Your task to perform on an android device: Show the shopping cart on costco.com. Add "lenovo thinkpad" to the cart on costco.com, then select checkout. Image 0: 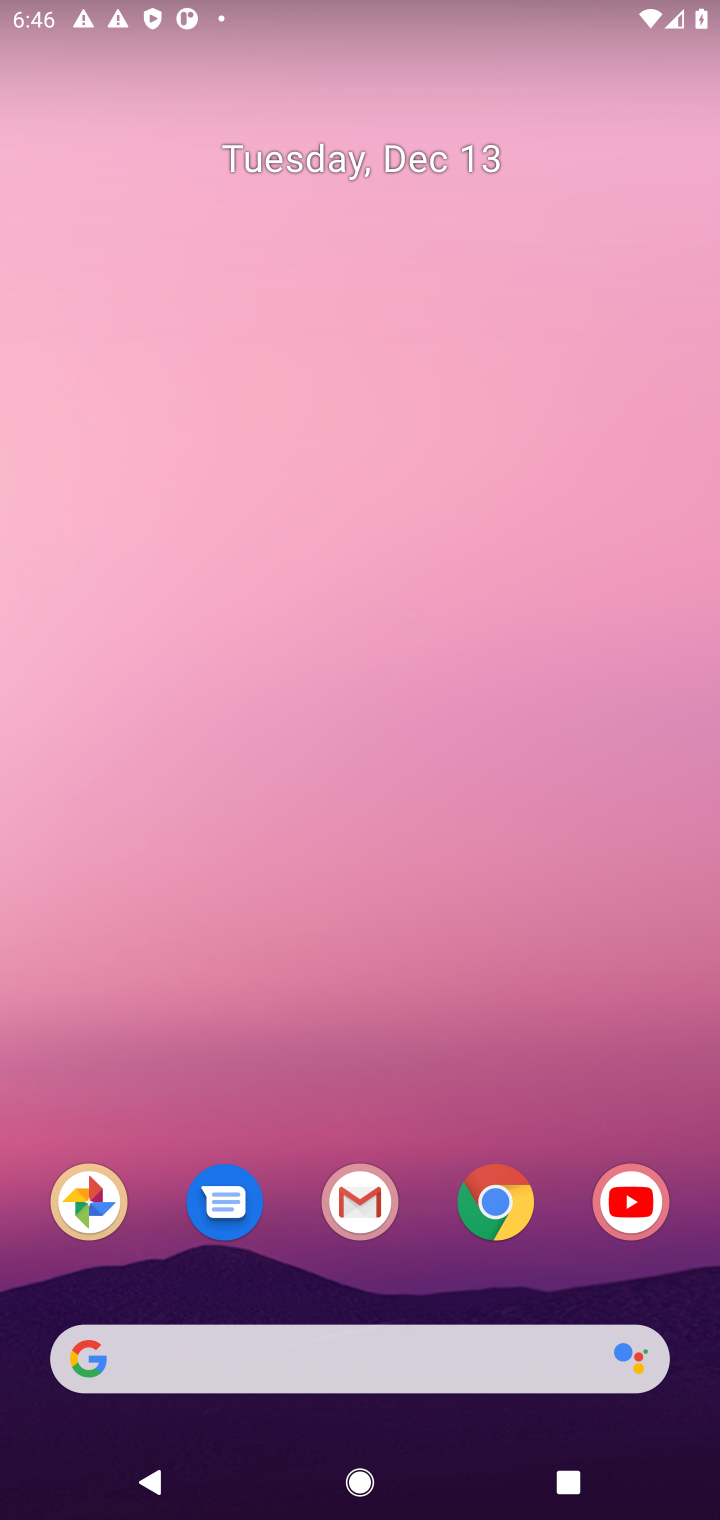
Step 0: click (498, 1212)
Your task to perform on an android device: Show the shopping cart on costco.com. Add "lenovo thinkpad" to the cart on costco.com, then select checkout. Image 1: 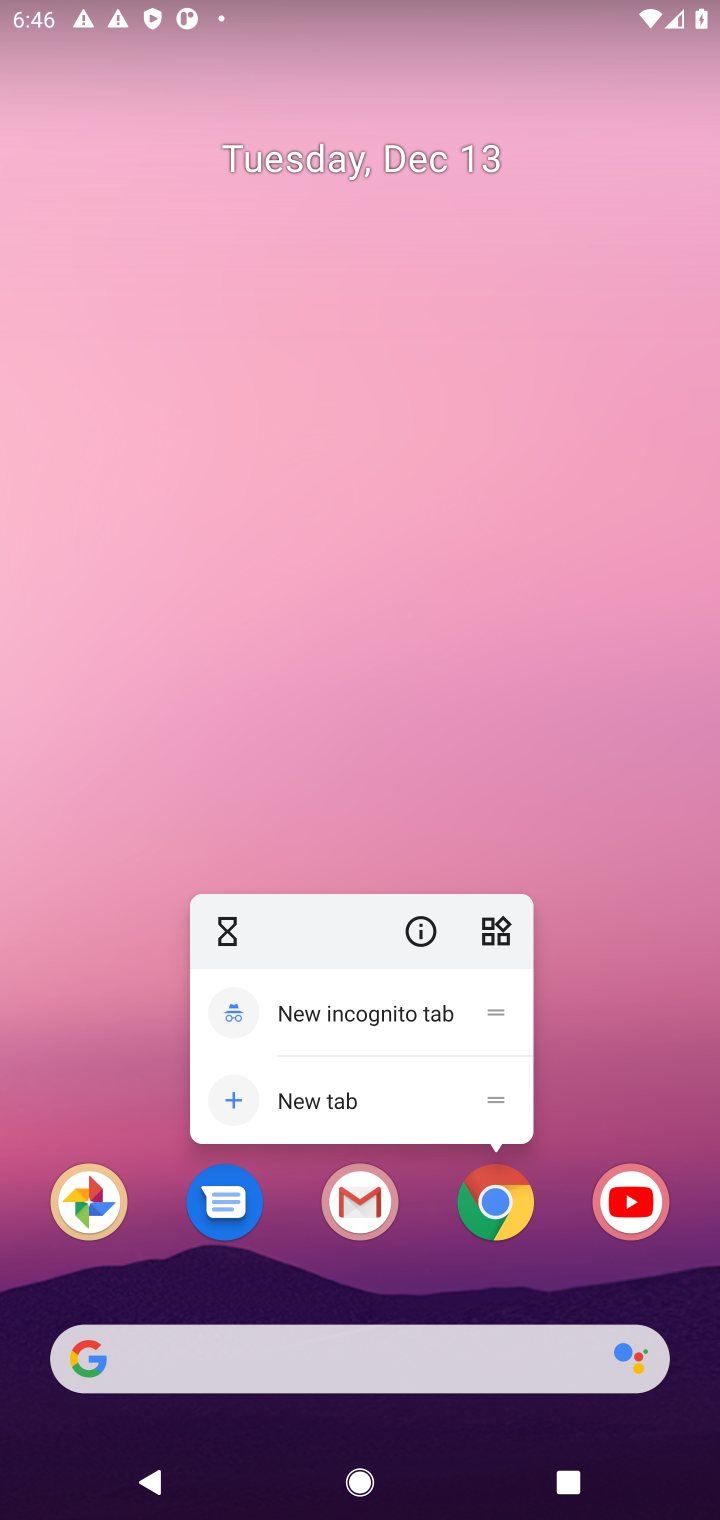
Step 1: click (495, 1215)
Your task to perform on an android device: Show the shopping cart on costco.com. Add "lenovo thinkpad" to the cart on costco.com, then select checkout. Image 2: 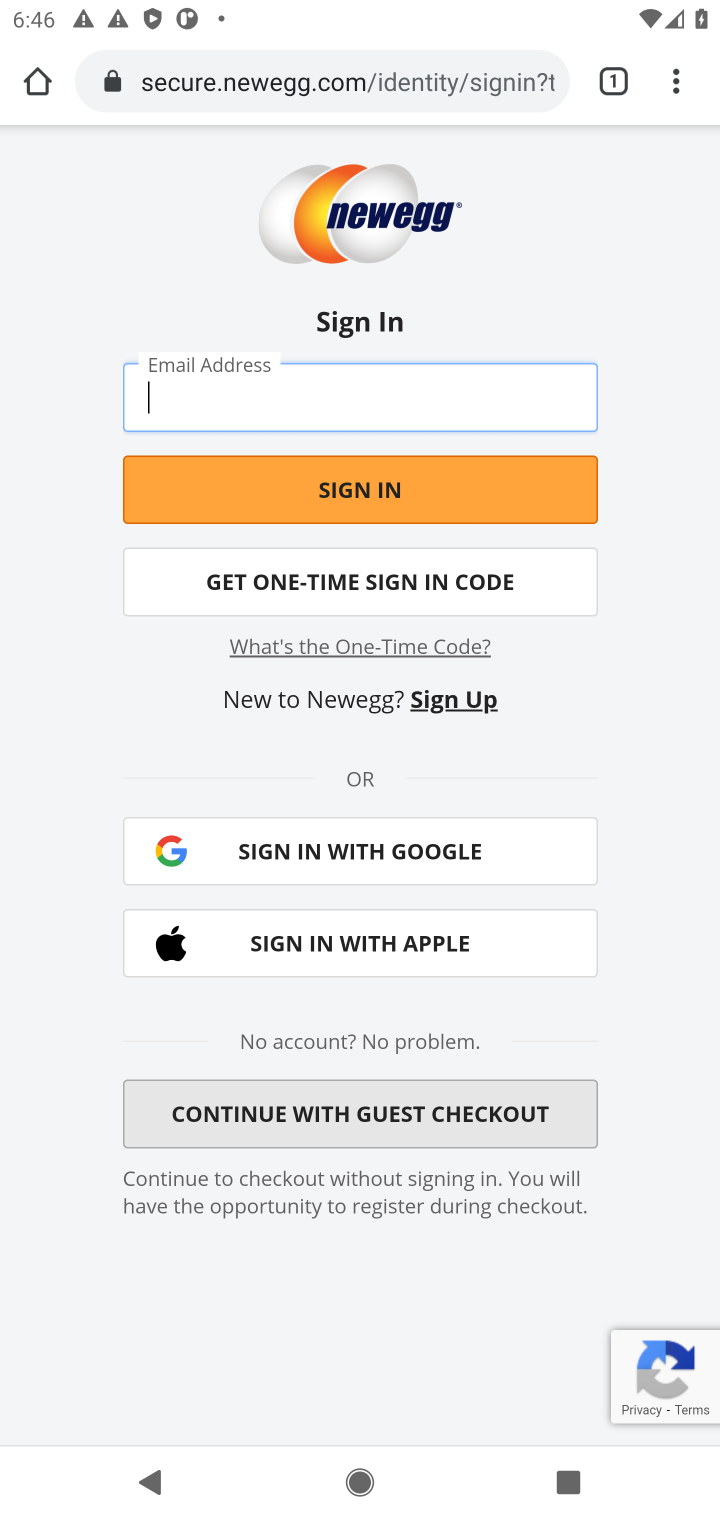
Step 2: click (292, 91)
Your task to perform on an android device: Show the shopping cart on costco.com. Add "lenovo thinkpad" to the cart on costco.com, then select checkout. Image 3: 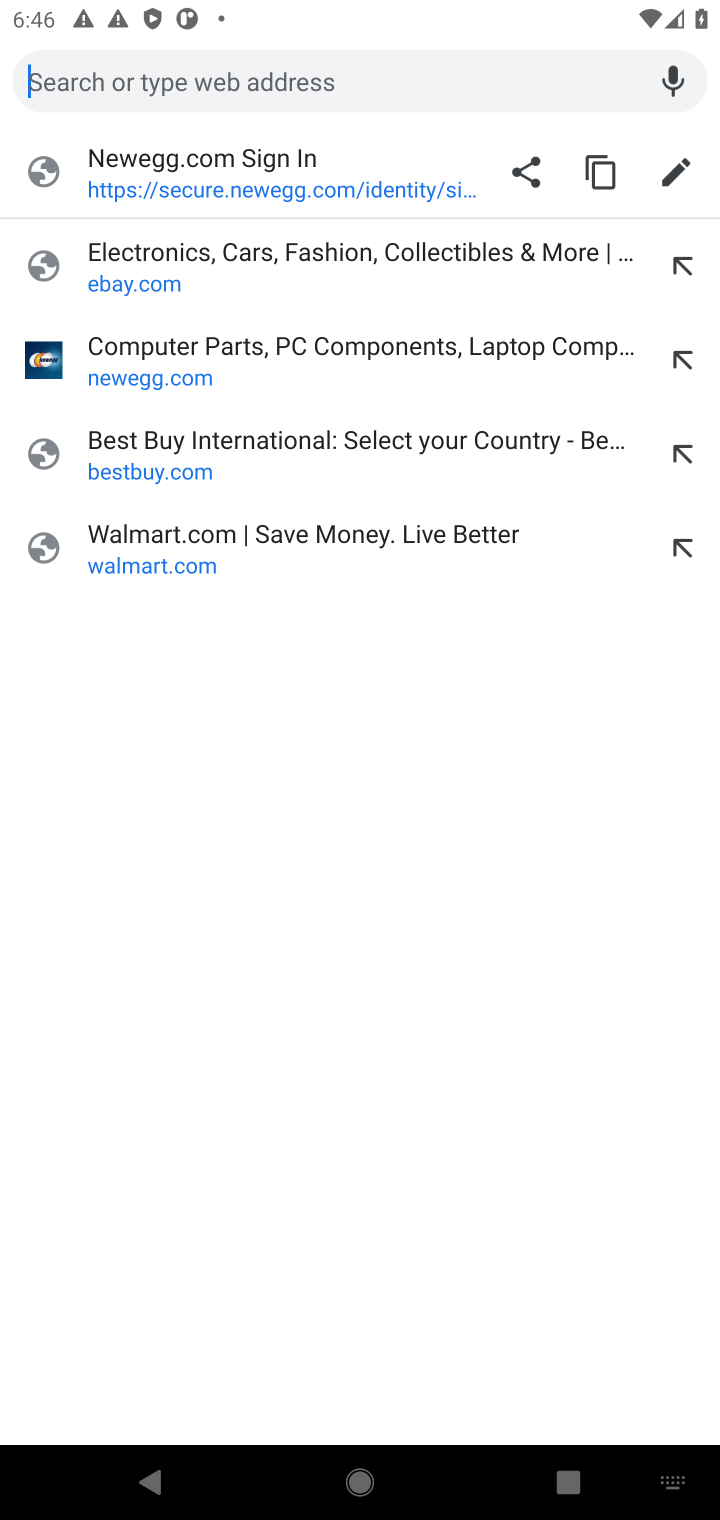
Step 3: type "costco.com"
Your task to perform on an android device: Show the shopping cart on costco.com. Add "lenovo thinkpad" to the cart on costco.com, then select checkout. Image 4: 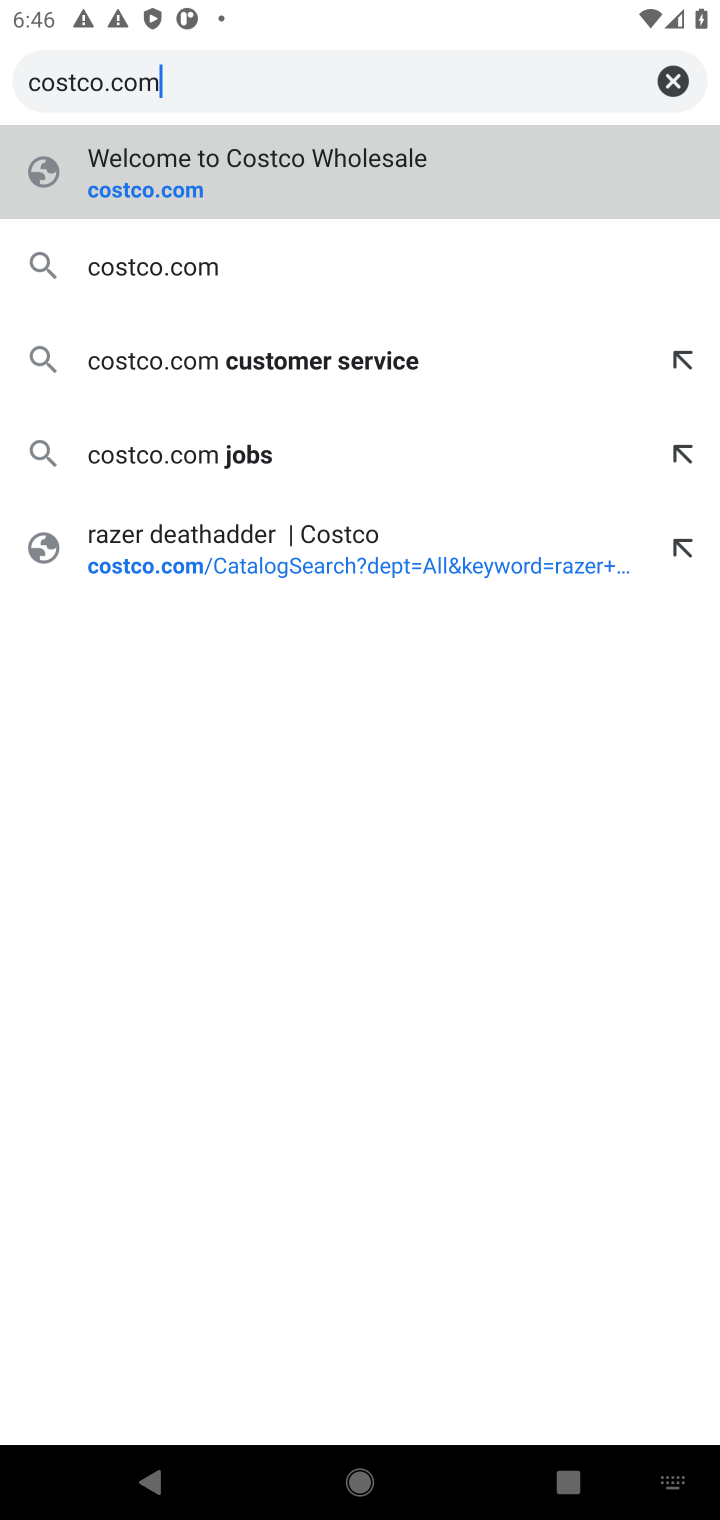
Step 4: click (163, 177)
Your task to perform on an android device: Show the shopping cart on costco.com. Add "lenovo thinkpad" to the cart on costco.com, then select checkout. Image 5: 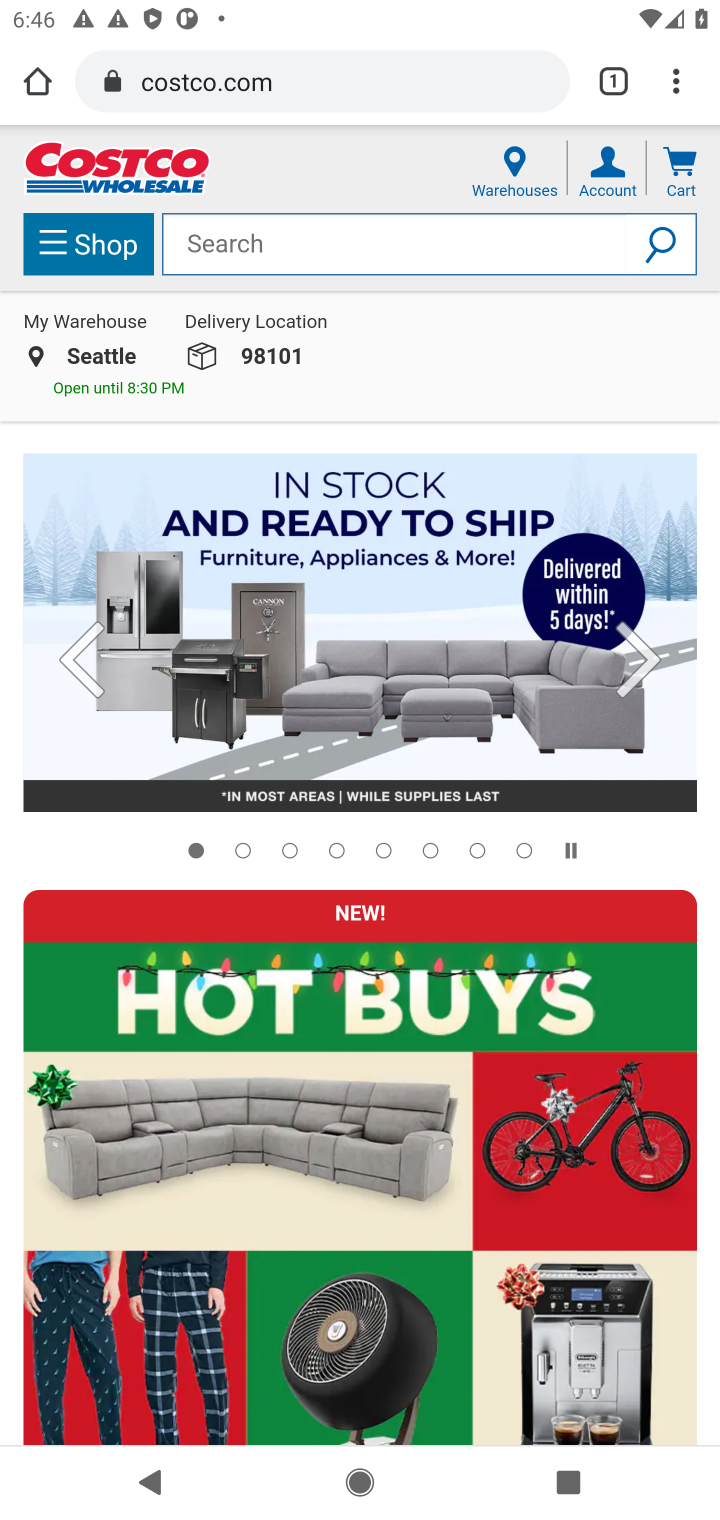
Step 5: click (668, 178)
Your task to perform on an android device: Show the shopping cart on costco.com. Add "lenovo thinkpad" to the cart on costco.com, then select checkout. Image 6: 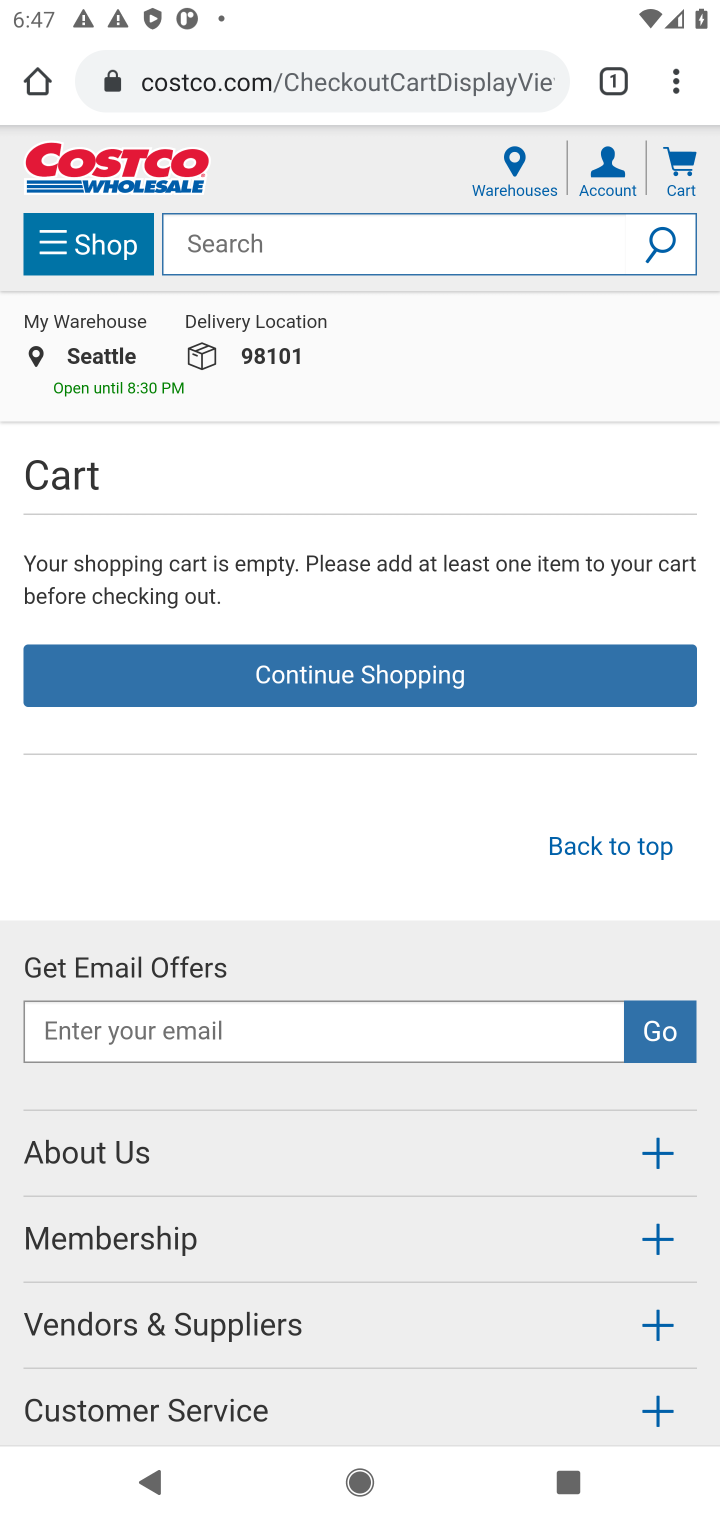
Step 6: click (223, 253)
Your task to perform on an android device: Show the shopping cart on costco.com. Add "lenovo thinkpad" to the cart on costco.com, then select checkout. Image 7: 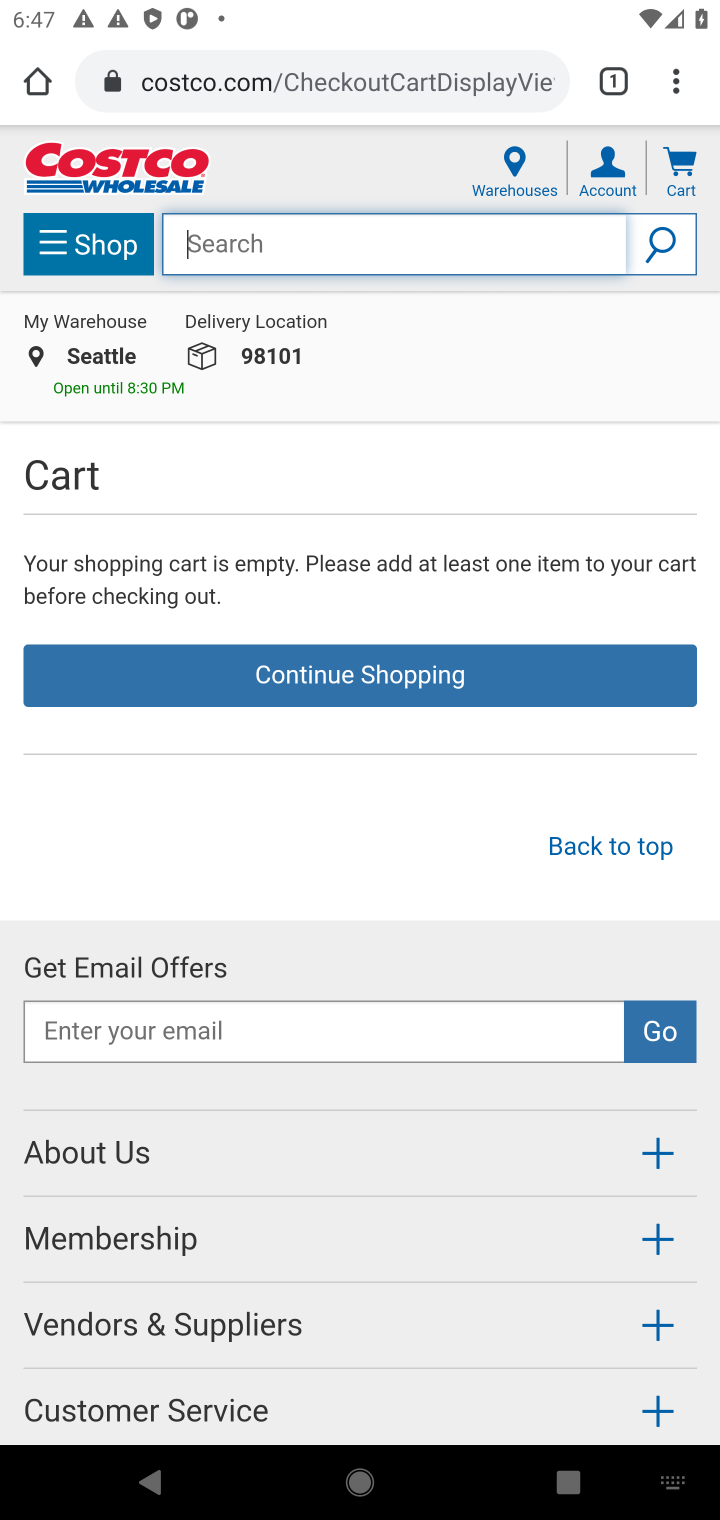
Step 7: type "lenovo thinkpad"
Your task to perform on an android device: Show the shopping cart on costco.com. Add "lenovo thinkpad" to the cart on costco.com, then select checkout. Image 8: 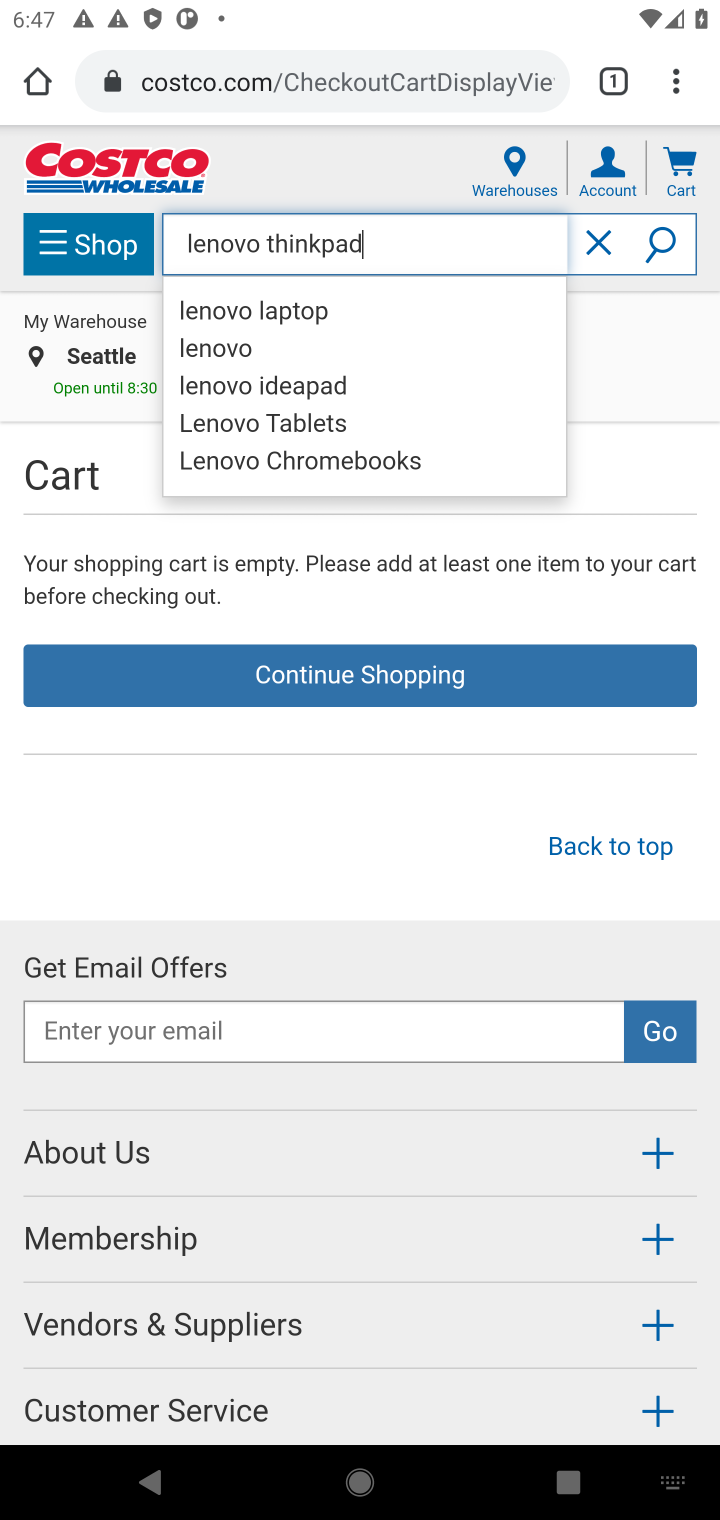
Step 8: click (650, 254)
Your task to perform on an android device: Show the shopping cart on costco.com. Add "lenovo thinkpad" to the cart on costco.com, then select checkout. Image 9: 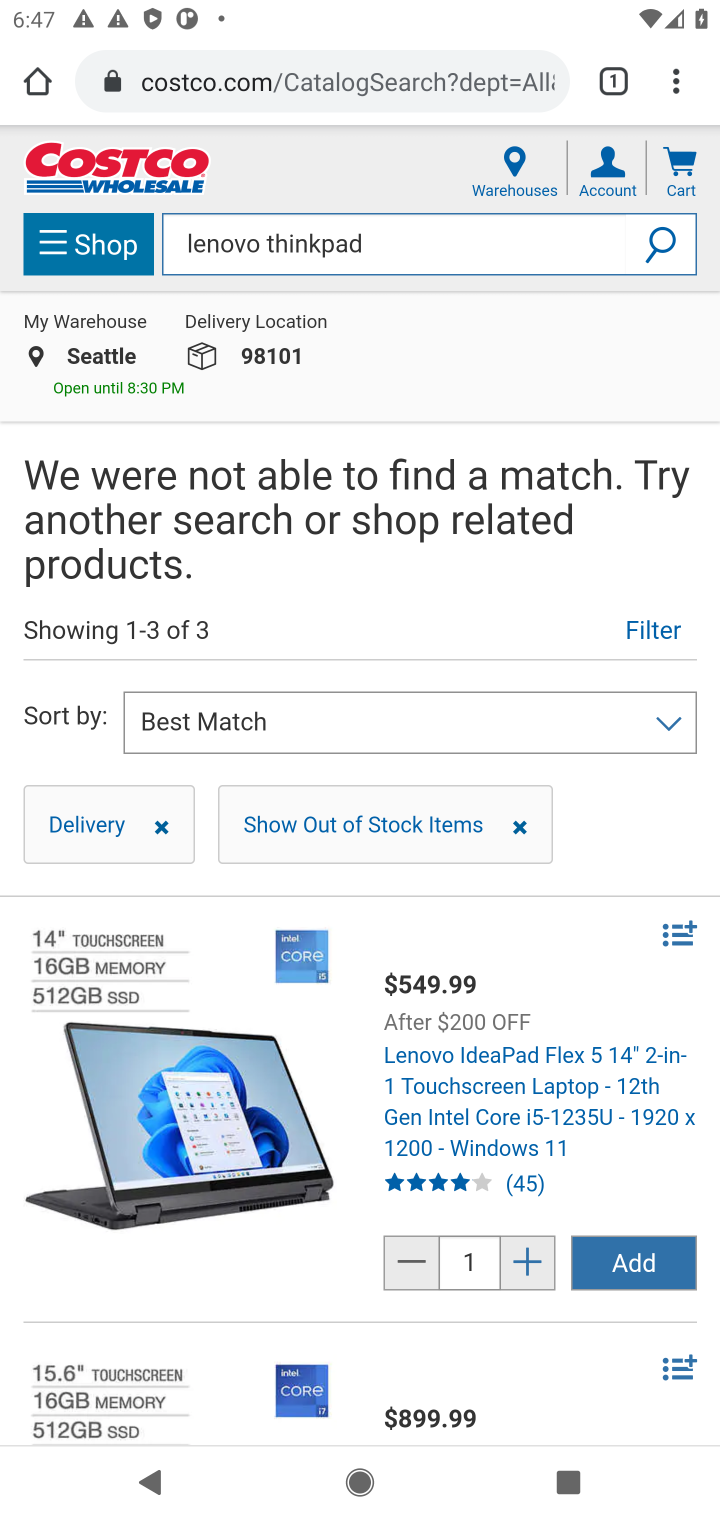
Step 9: task complete